Your task to perform on an android device: Open calendar and show me the third week of next month Image 0: 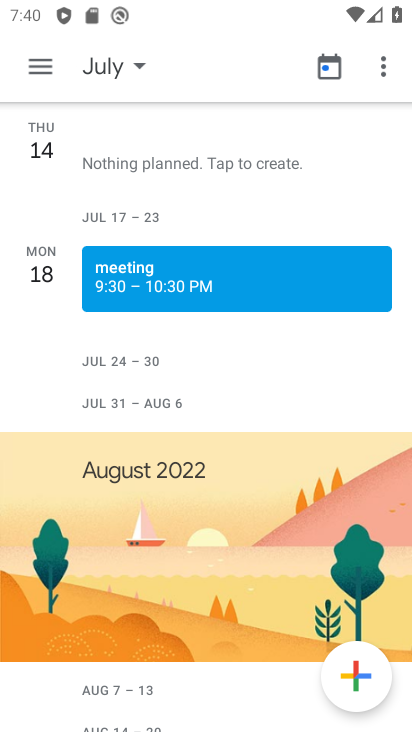
Step 0: press home button
Your task to perform on an android device: Open calendar and show me the third week of next month Image 1: 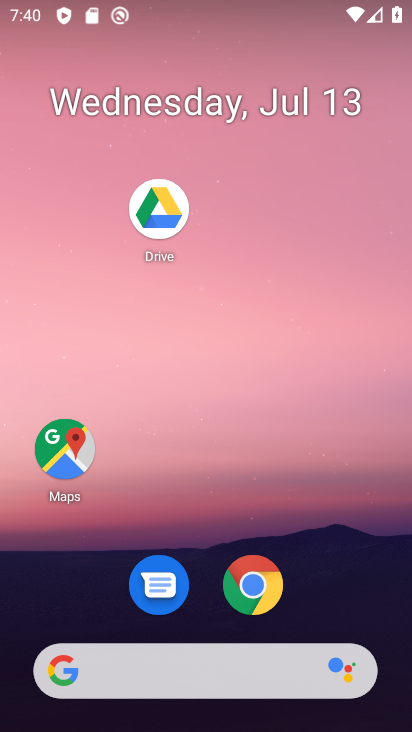
Step 1: drag from (220, 662) to (305, 55)
Your task to perform on an android device: Open calendar and show me the third week of next month Image 2: 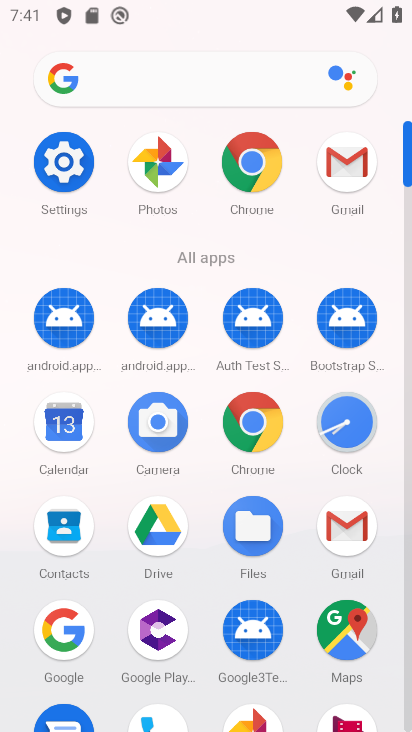
Step 2: click (59, 433)
Your task to perform on an android device: Open calendar and show me the third week of next month Image 3: 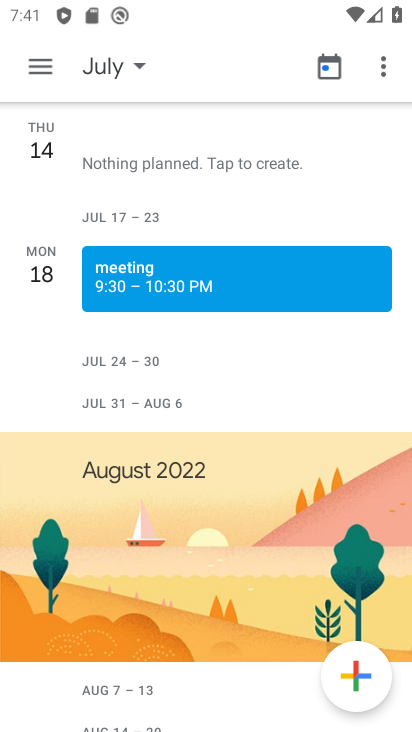
Step 3: click (95, 77)
Your task to perform on an android device: Open calendar and show me the third week of next month Image 4: 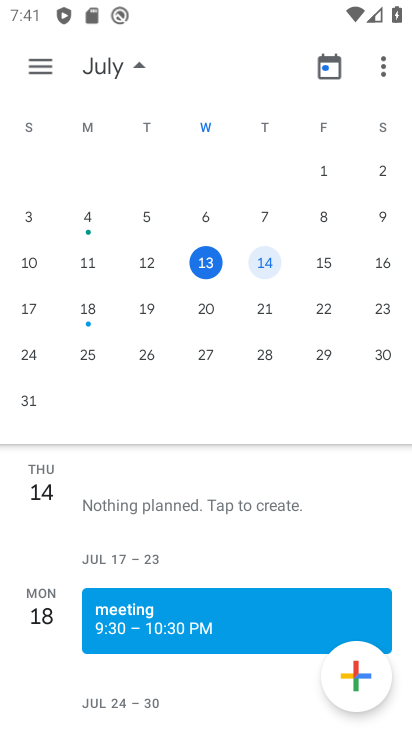
Step 4: drag from (327, 347) to (28, 307)
Your task to perform on an android device: Open calendar and show me the third week of next month Image 5: 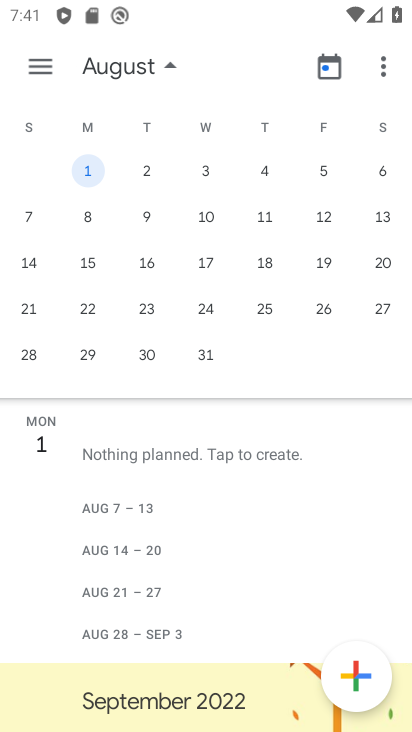
Step 5: click (30, 260)
Your task to perform on an android device: Open calendar and show me the third week of next month Image 6: 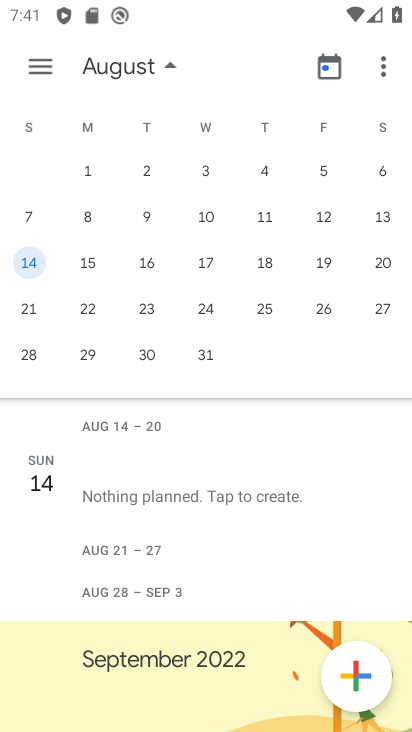
Step 6: click (42, 66)
Your task to perform on an android device: Open calendar and show me the third week of next month Image 7: 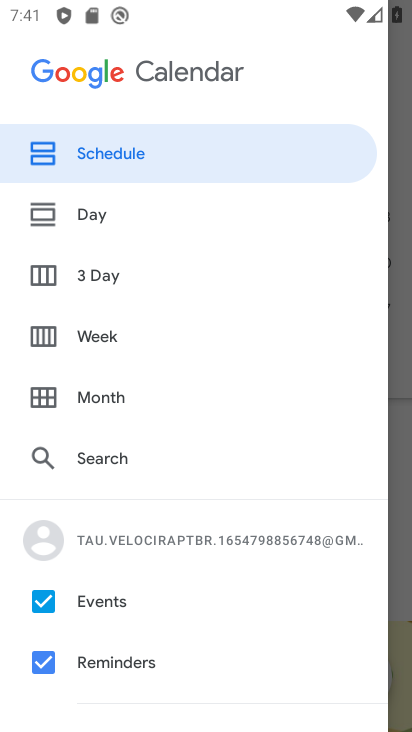
Step 7: click (112, 338)
Your task to perform on an android device: Open calendar and show me the third week of next month Image 8: 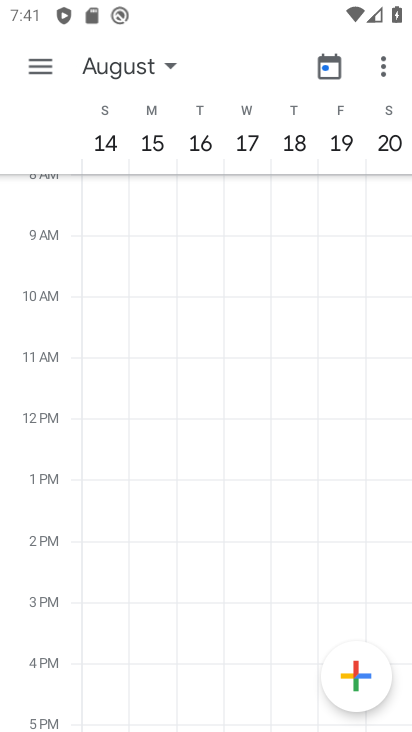
Step 8: task complete